Your task to perform on an android device: change notification settings in the gmail app Image 0: 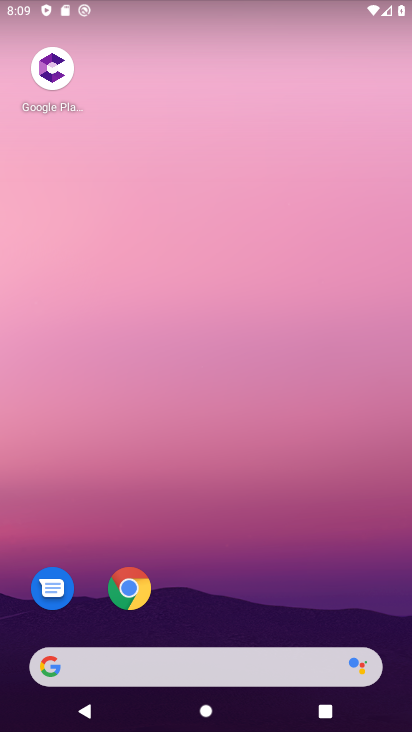
Step 0: drag from (367, 623) to (296, 127)
Your task to perform on an android device: change notification settings in the gmail app Image 1: 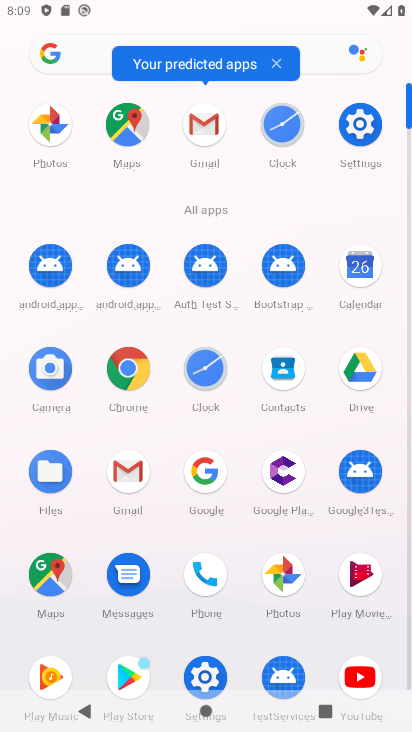
Step 1: click (410, 678)
Your task to perform on an android device: change notification settings in the gmail app Image 2: 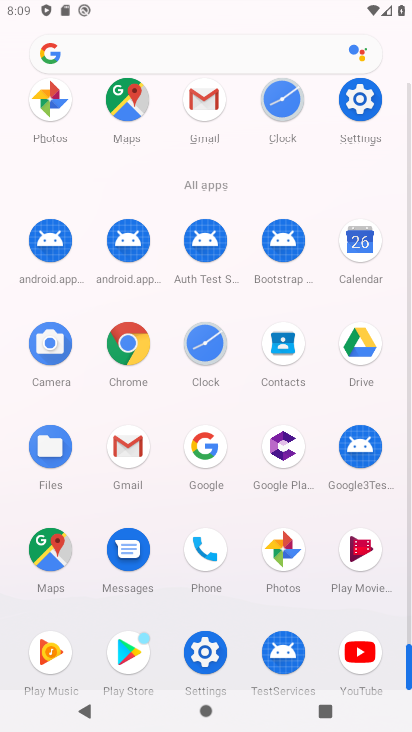
Step 2: click (128, 448)
Your task to perform on an android device: change notification settings in the gmail app Image 3: 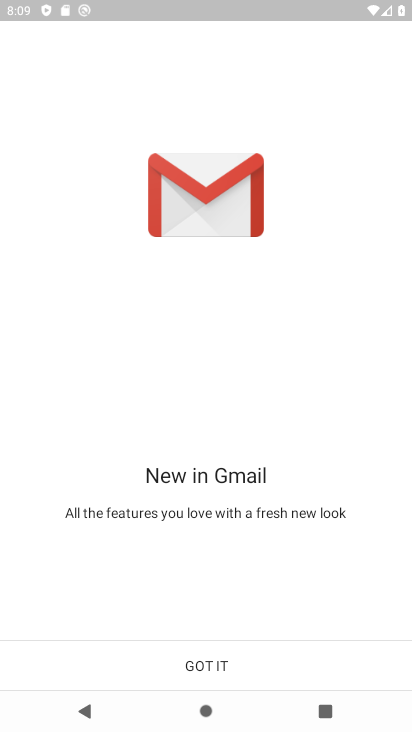
Step 3: click (197, 666)
Your task to perform on an android device: change notification settings in the gmail app Image 4: 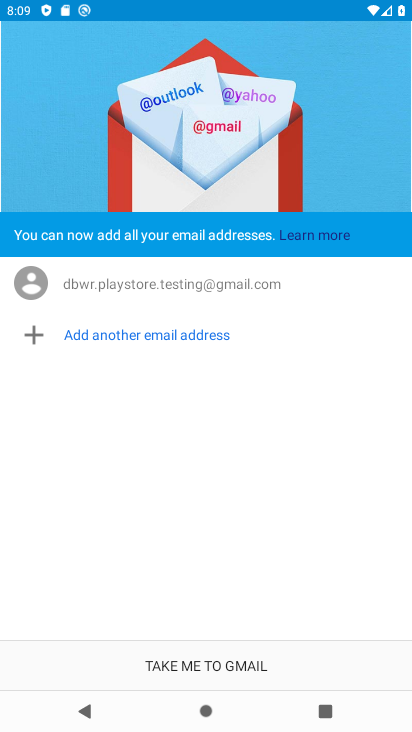
Step 4: click (205, 682)
Your task to perform on an android device: change notification settings in the gmail app Image 5: 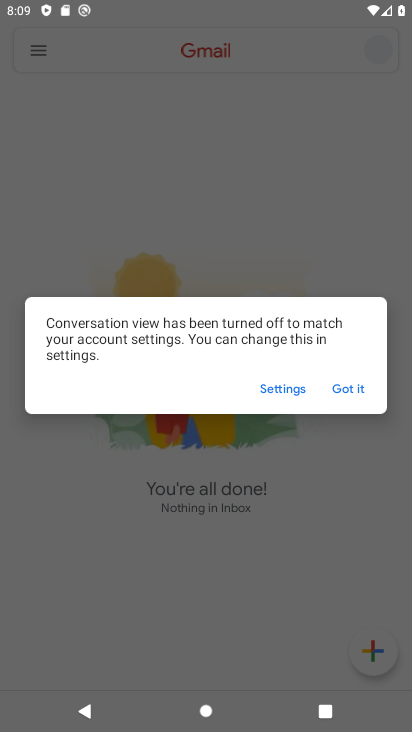
Step 5: click (344, 386)
Your task to perform on an android device: change notification settings in the gmail app Image 6: 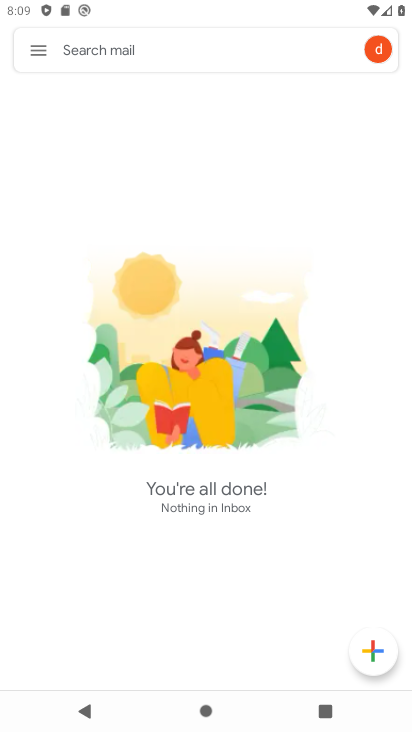
Step 6: click (40, 50)
Your task to perform on an android device: change notification settings in the gmail app Image 7: 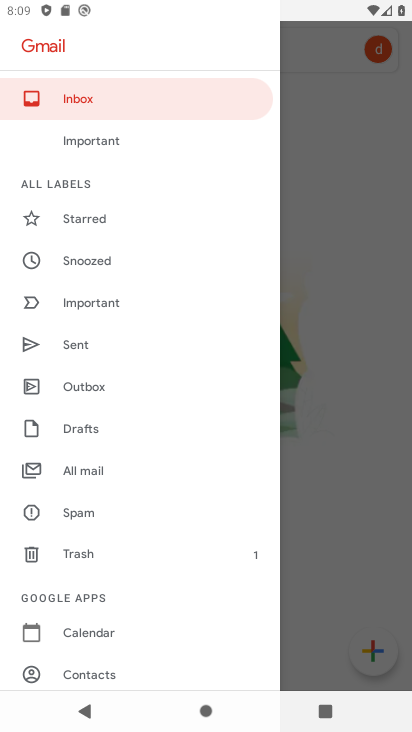
Step 7: drag from (141, 657) to (127, 338)
Your task to perform on an android device: change notification settings in the gmail app Image 8: 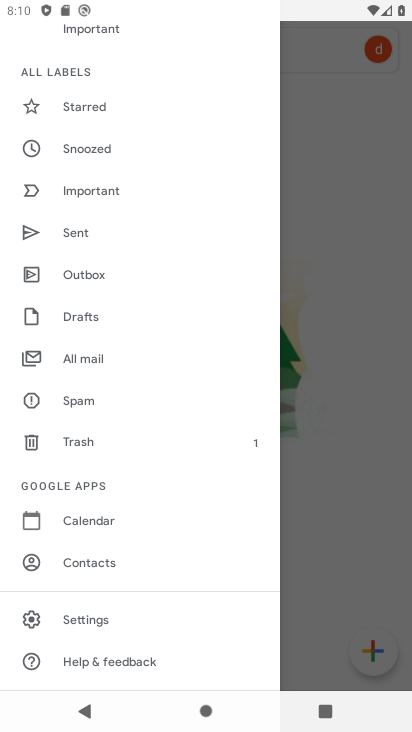
Step 8: click (83, 614)
Your task to perform on an android device: change notification settings in the gmail app Image 9: 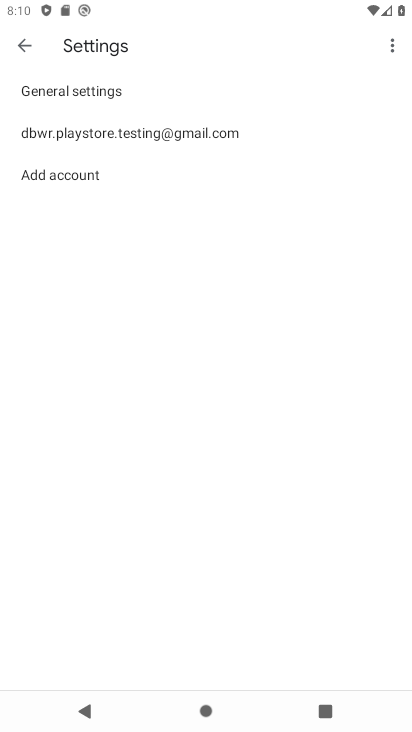
Step 9: click (136, 132)
Your task to perform on an android device: change notification settings in the gmail app Image 10: 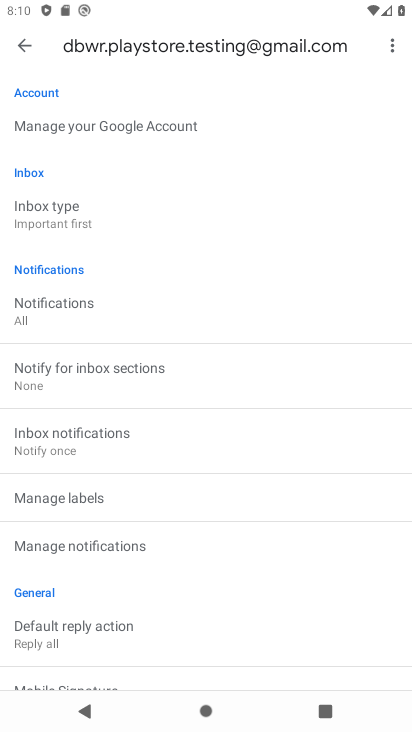
Step 10: click (78, 546)
Your task to perform on an android device: change notification settings in the gmail app Image 11: 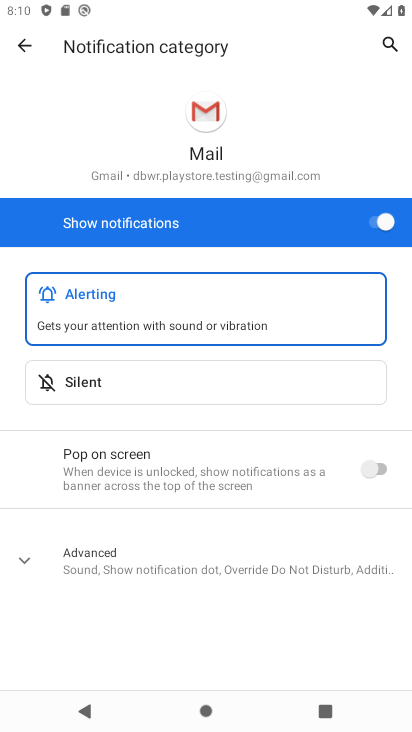
Step 11: click (24, 565)
Your task to perform on an android device: change notification settings in the gmail app Image 12: 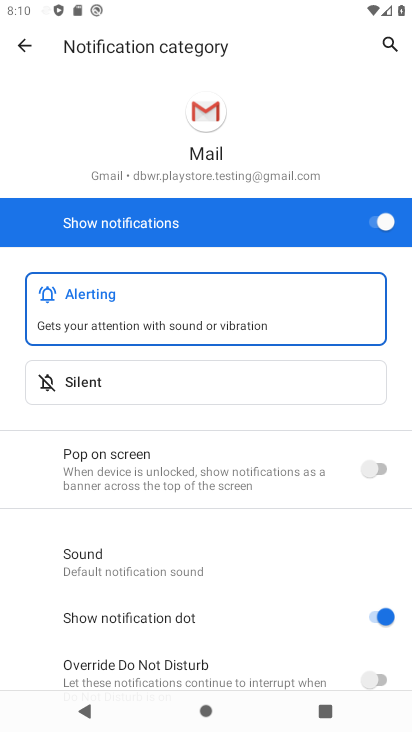
Step 12: click (382, 462)
Your task to perform on an android device: change notification settings in the gmail app Image 13: 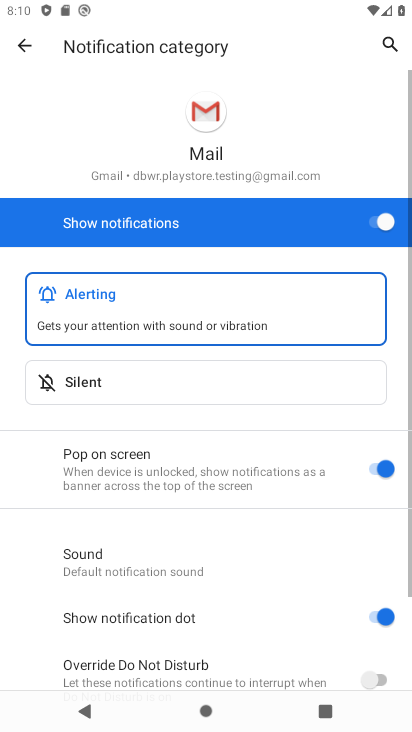
Step 13: click (384, 684)
Your task to perform on an android device: change notification settings in the gmail app Image 14: 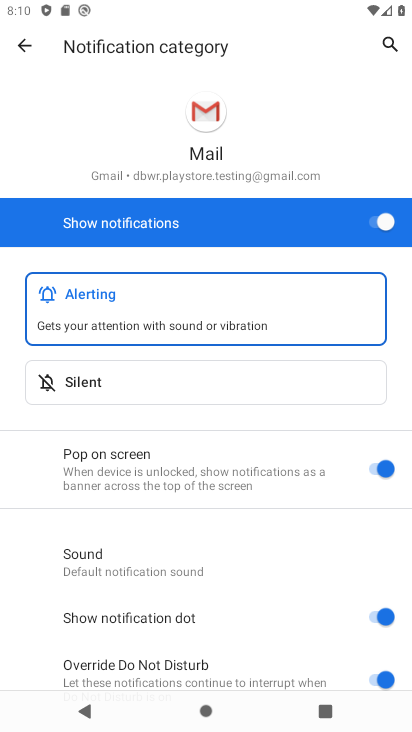
Step 14: task complete